Your task to perform on an android device: turn off translation in the chrome app Image 0: 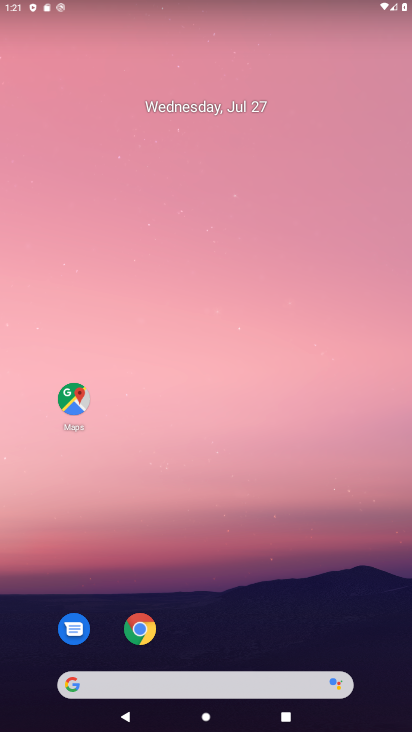
Step 0: drag from (254, 641) to (285, 165)
Your task to perform on an android device: turn off translation in the chrome app Image 1: 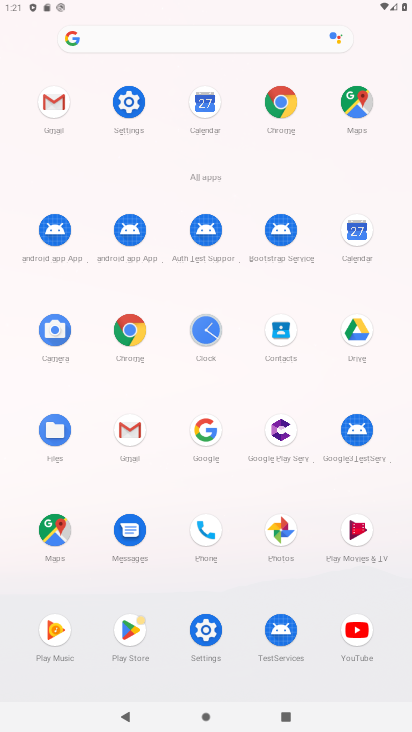
Step 1: click (280, 110)
Your task to perform on an android device: turn off translation in the chrome app Image 2: 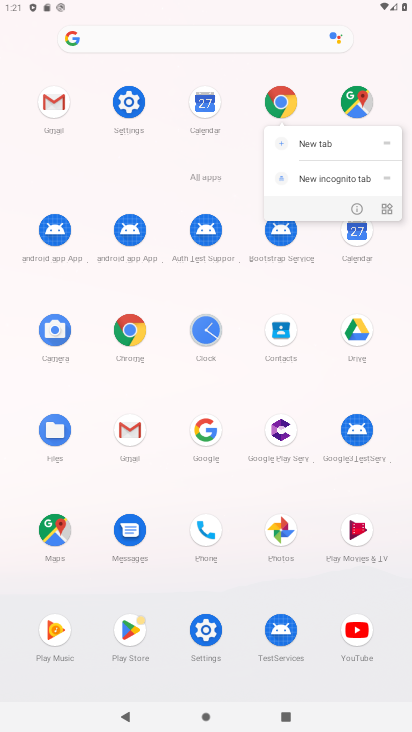
Step 2: click (280, 110)
Your task to perform on an android device: turn off translation in the chrome app Image 3: 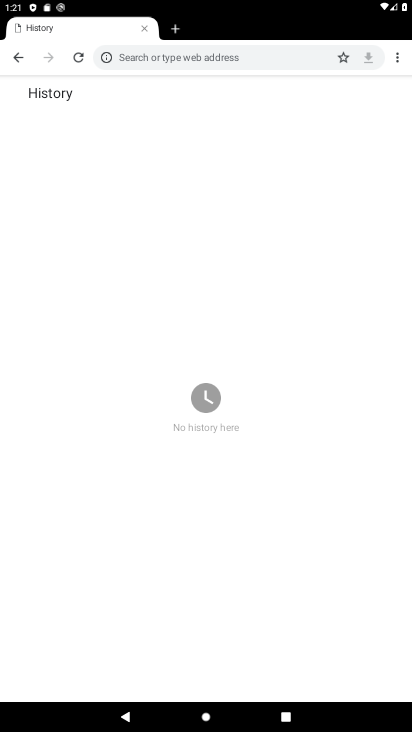
Step 3: drag from (397, 53) to (287, 262)
Your task to perform on an android device: turn off translation in the chrome app Image 4: 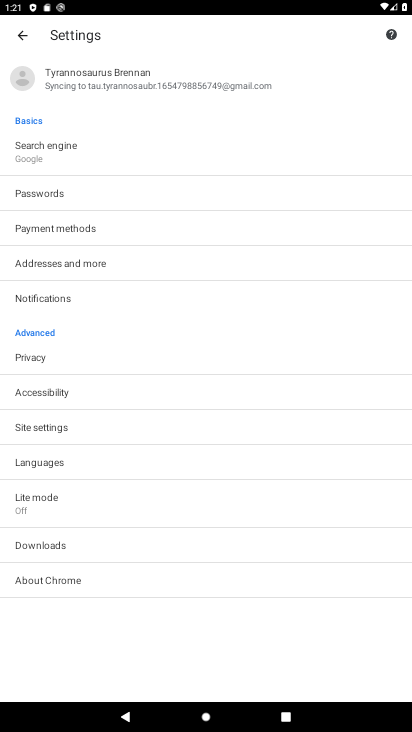
Step 4: click (27, 465)
Your task to perform on an android device: turn off translation in the chrome app Image 5: 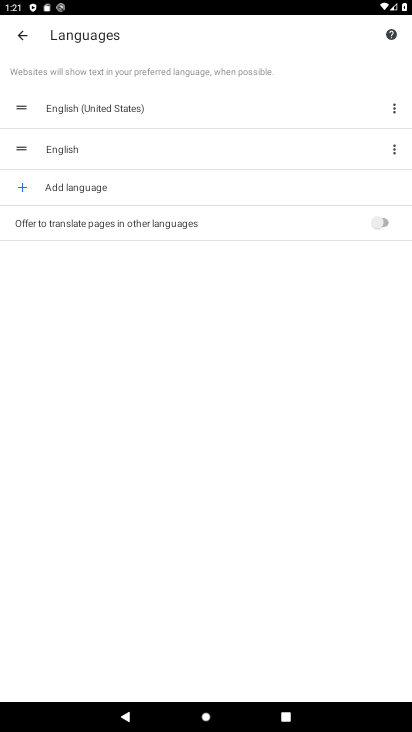
Step 5: task complete